Your task to perform on an android device: Open the calendar app, open the side menu, and click the "Day" option Image 0: 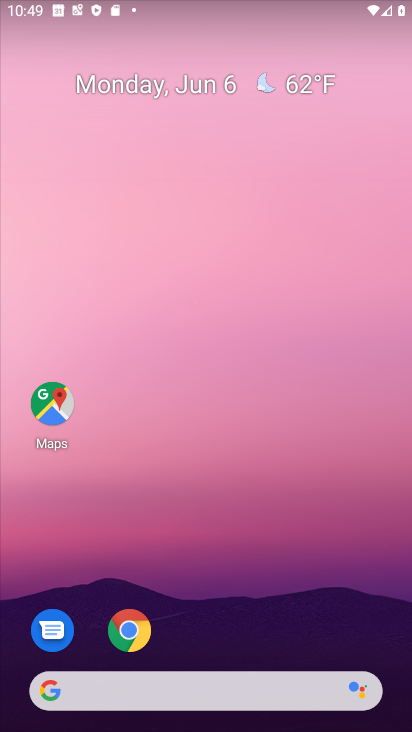
Step 0: drag from (340, 606) to (317, 182)
Your task to perform on an android device: Open the calendar app, open the side menu, and click the "Day" option Image 1: 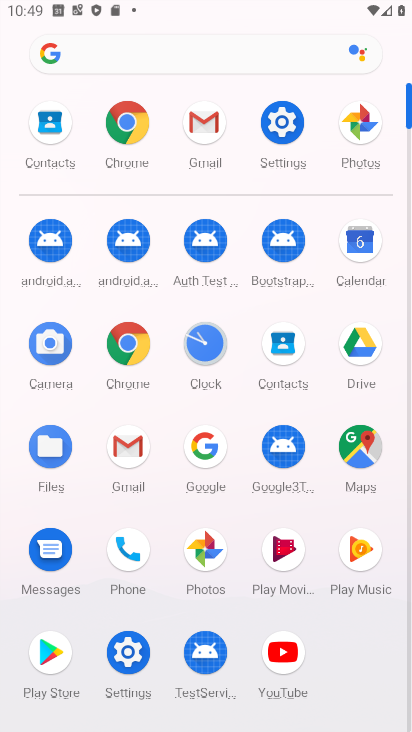
Step 1: click (365, 256)
Your task to perform on an android device: Open the calendar app, open the side menu, and click the "Day" option Image 2: 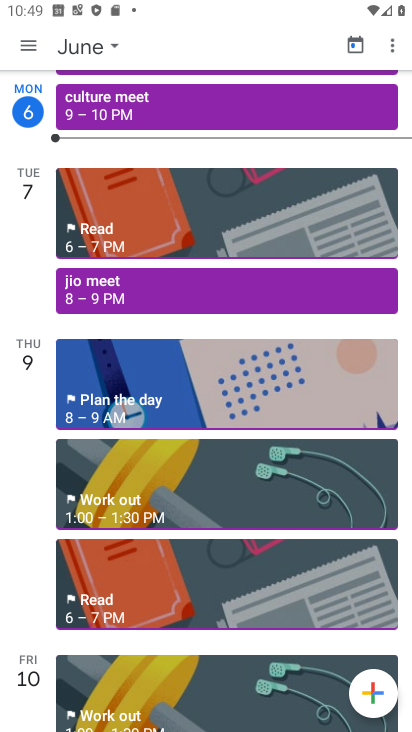
Step 2: click (365, 258)
Your task to perform on an android device: Open the calendar app, open the side menu, and click the "Day" option Image 3: 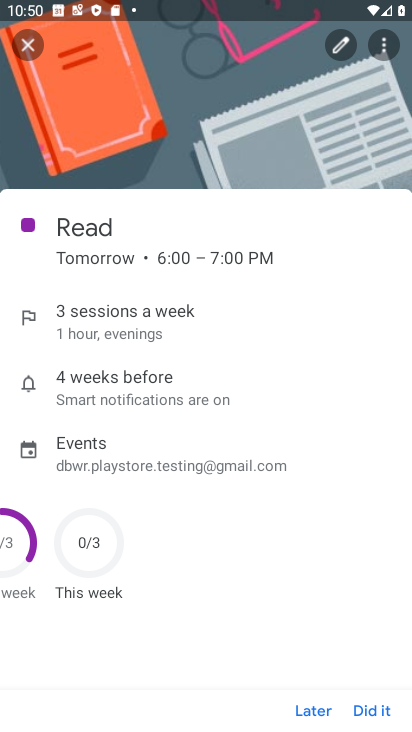
Step 3: press home button
Your task to perform on an android device: Open the calendar app, open the side menu, and click the "Day" option Image 4: 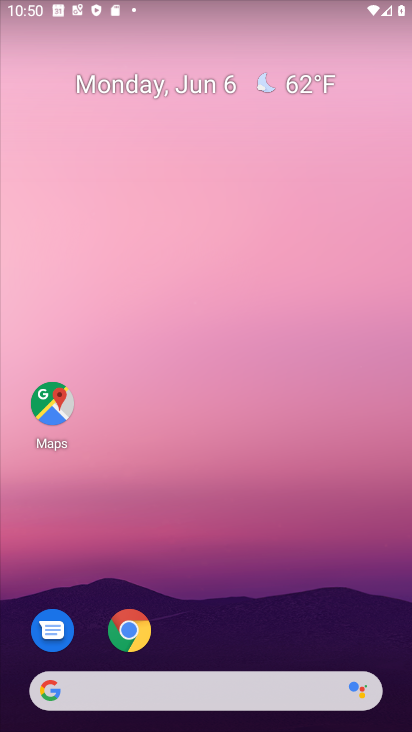
Step 4: drag from (292, 629) to (307, 204)
Your task to perform on an android device: Open the calendar app, open the side menu, and click the "Day" option Image 5: 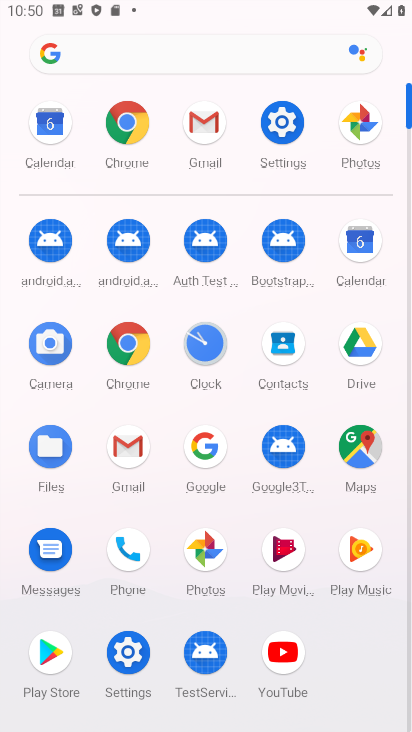
Step 5: click (347, 254)
Your task to perform on an android device: Open the calendar app, open the side menu, and click the "Day" option Image 6: 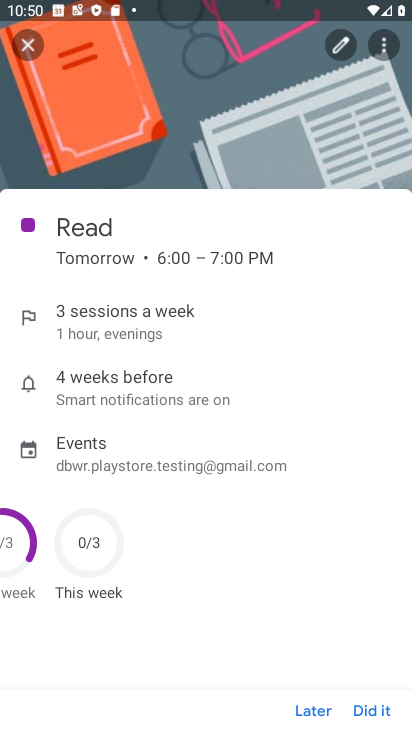
Step 6: click (21, 53)
Your task to perform on an android device: Open the calendar app, open the side menu, and click the "Day" option Image 7: 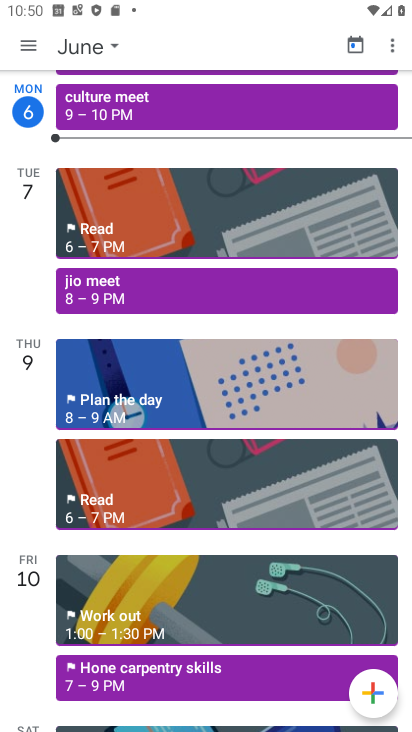
Step 7: click (28, 49)
Your task to perform on an android device: Open the calendar app, open the side menu, and click the "Day" option Image 8: 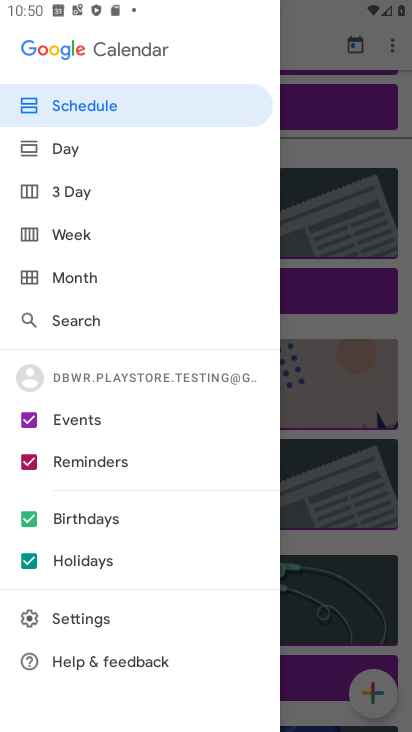
Step 8: click (66, 157)
Your task to perform on an android device: Open the calendar app, open the side menu, and click the "Day" option Image 9: 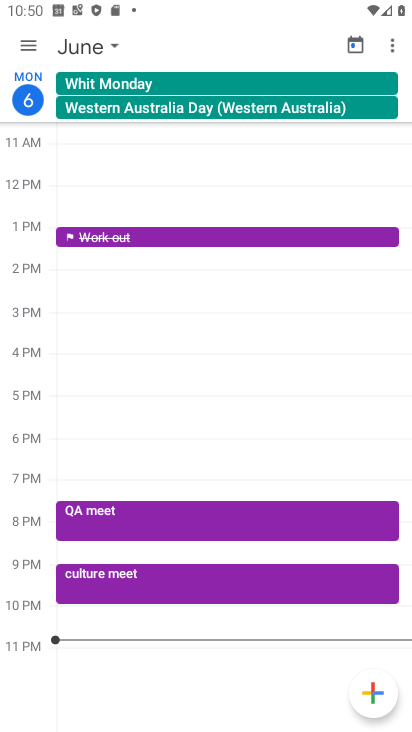
Step 9: task complete